Your task to perform on an android device: Do I have any events tomorrow? Image 0: 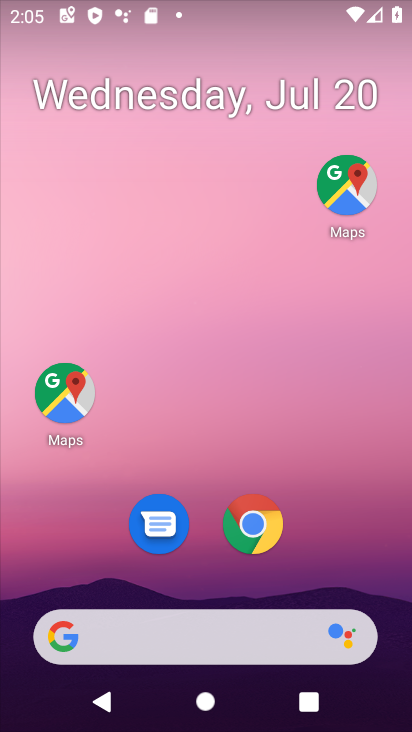
Step 0: drag from (311, 549) to (342, 46)
Your task to perform on an android device: Do I have any events tomorrow? Image 1: 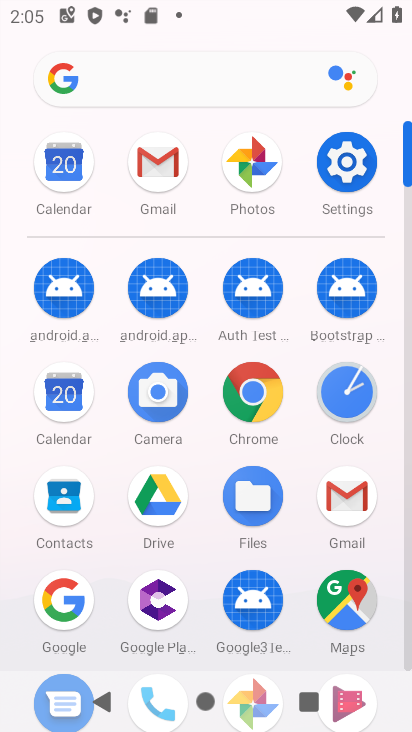
Step 1: click (74, 168)
Your task to perform on an android device: Do I have any events tomorrow? Image 2: 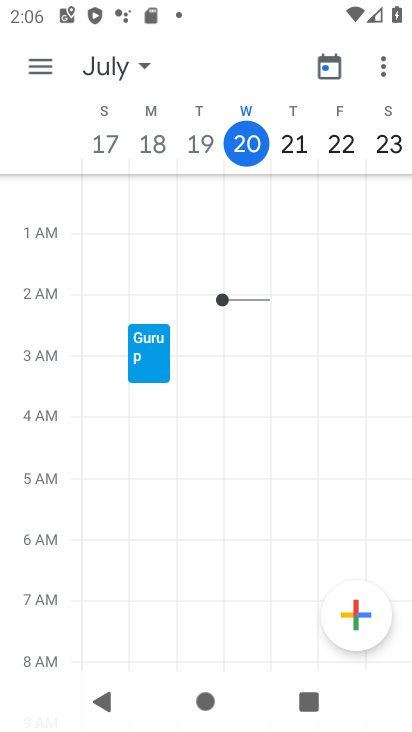
Step 2: task complete